Your task to perform on an android device: What's on my calendar today? Image 0: 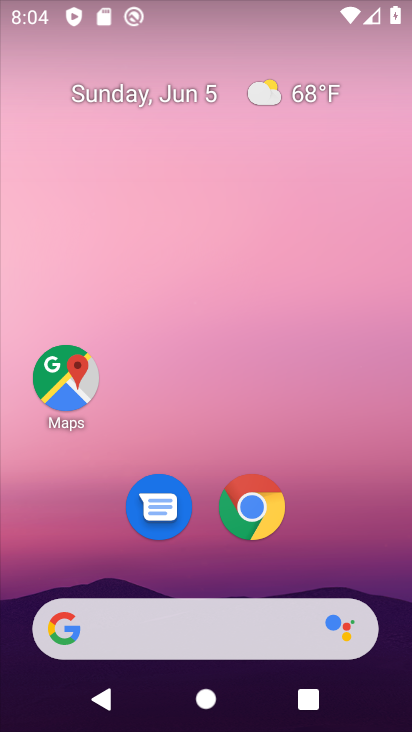
Step 0: drag from (205, 561) to (258, 27)
Your task to perform on an android device: What's on my calendar today? Image 1: 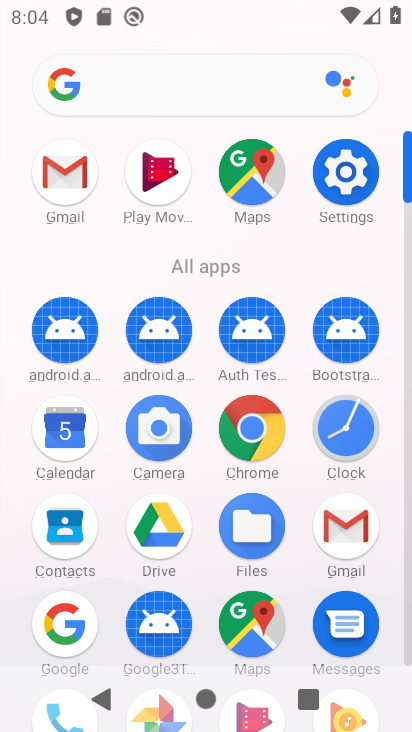
Step 1: click (69, 433)
Your task to perform on an android device: What's on my calendar today? Image 2: 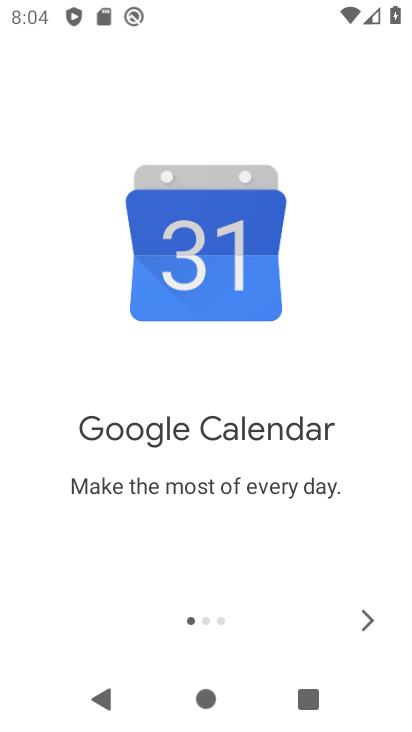
Step 2: click (376, 625)
Your task to perform on an android device: What's on my calendar today? Image 3: 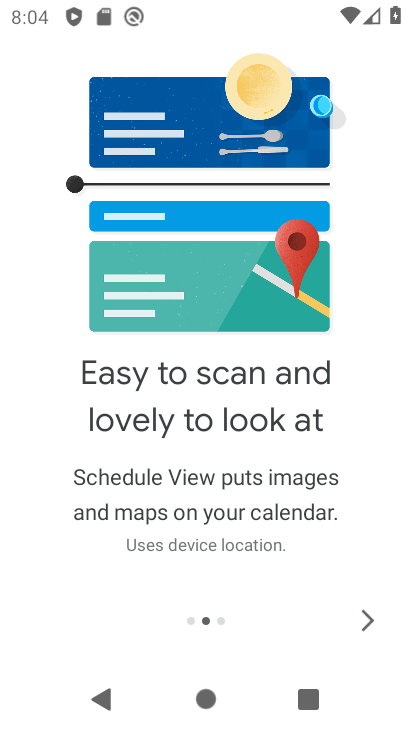
Step 3: click (367, 620)
Your task to perform on an android device: What's on my calendar today? Image 4: 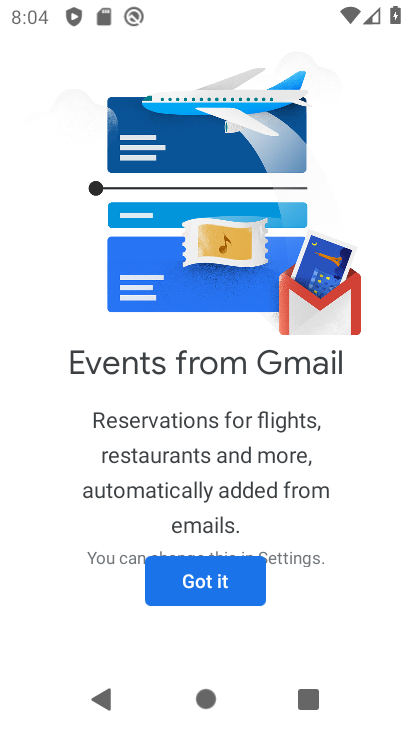
Step 4: click (208, 573)
Your task to perform on an android device: What's on my calendar today? Image 5: 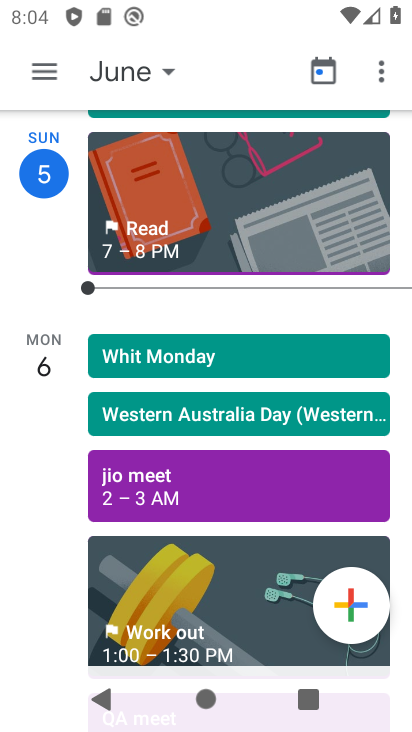
Step 5: click (46, 62)
Your task to perform on an android device: What's on my calendar today? Image 6: 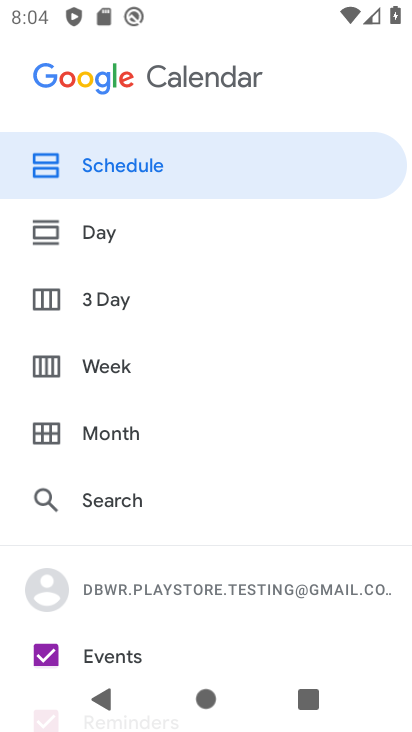
Step 6: click (117, 249)
Your task to perform on an android device: What's on my calendar today? Image 7: 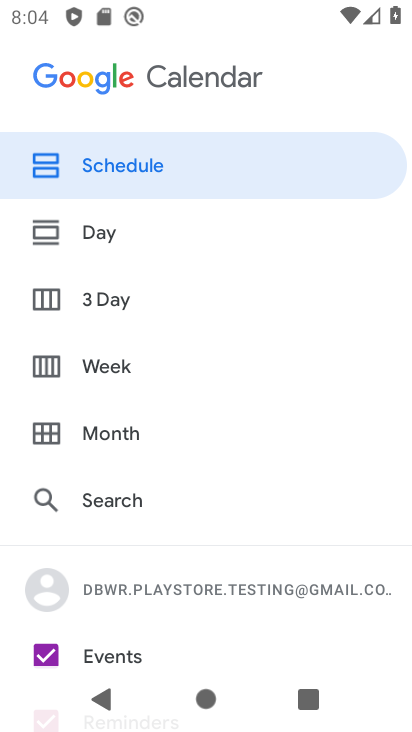
Step 7: click (118, 248)
Your task to perform on an android device: What's on my calendar today? Image 8: 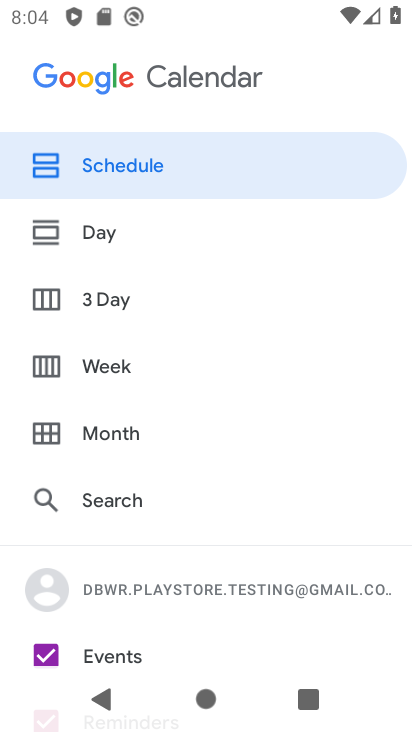
Step 8: click (124, 241)
Your task to perform on an android device: What's on my calendar today? Image 9: 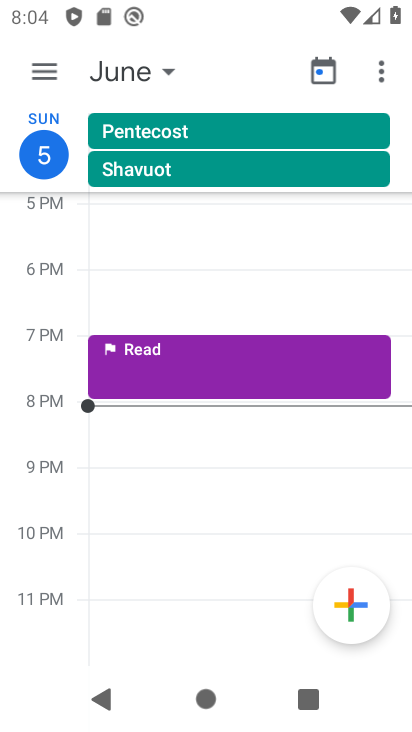
Step 9: task complete